Your task to perform on an android device: Search for "jbl flip 4" on bestbuy.com, select the first entry, add it to the cart, then select checkout. Image 0: 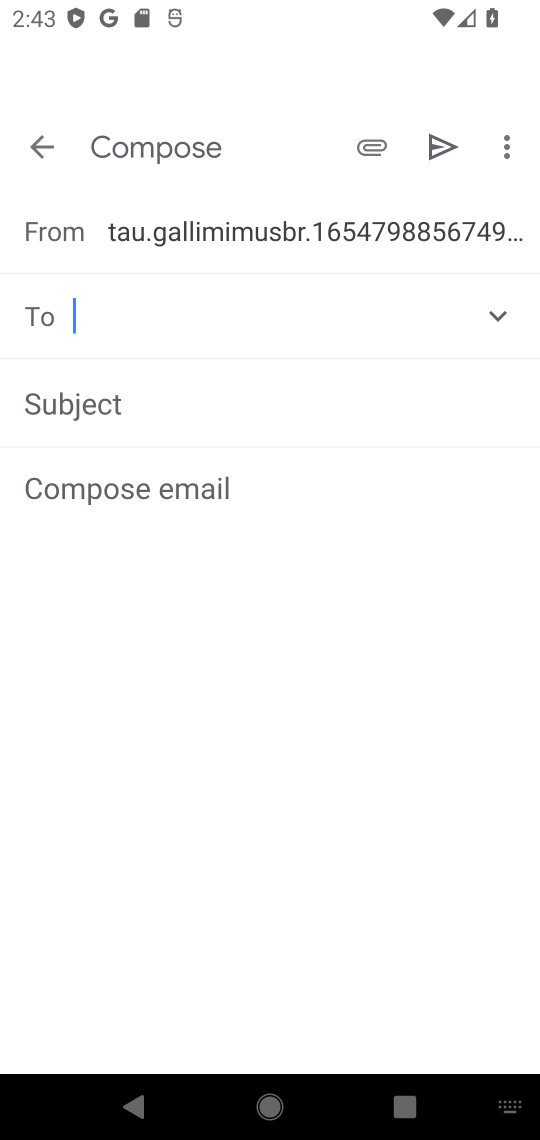
Step 0: press home button
Your task to perform on an android device: Search for "jbl flip 4" on bestbuy.com, select the first entry, add it to the cart, then select checkout. Image 1: 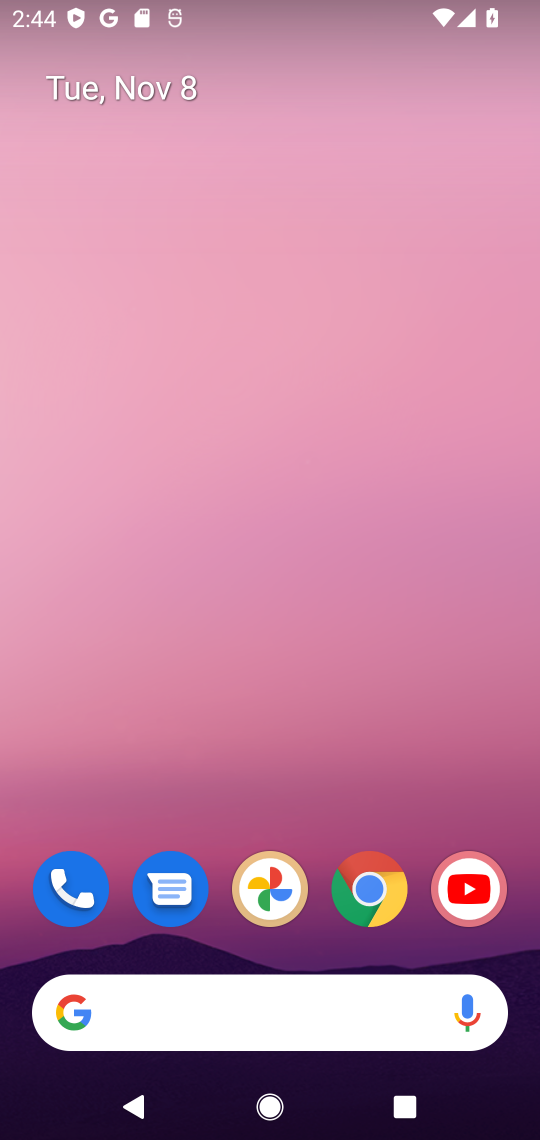
Step 1: click (367, 886)
Your task to perform on an android device: Search for "jbl flip 4" on bestbuy.com, select the first entry, add it to the cart, then select checkout. Image 2: 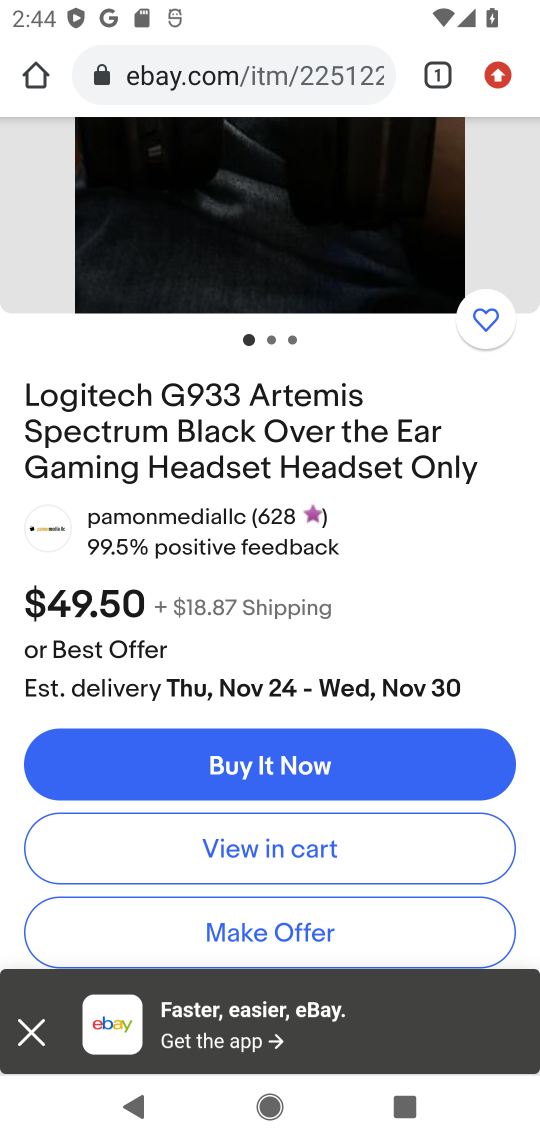
Step 2: click (197, 91)
Your task to perform on an android device: Search for "jbl flip 4" on bestbuy.com, select the first entry, add it to the cart, then select checkout. Image 3: 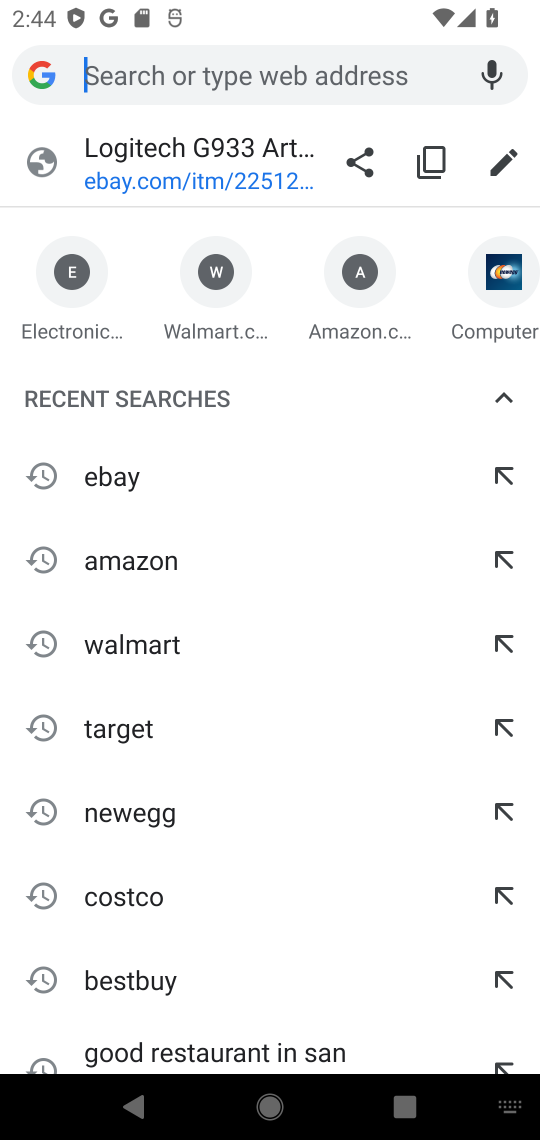
Step 3: type "bestbuy.com"
Your task to perform on an android device: Search for "jbl flip 4" on bestbuy.com, select the first entry, add it to the cart, then select checkout. Image 4: 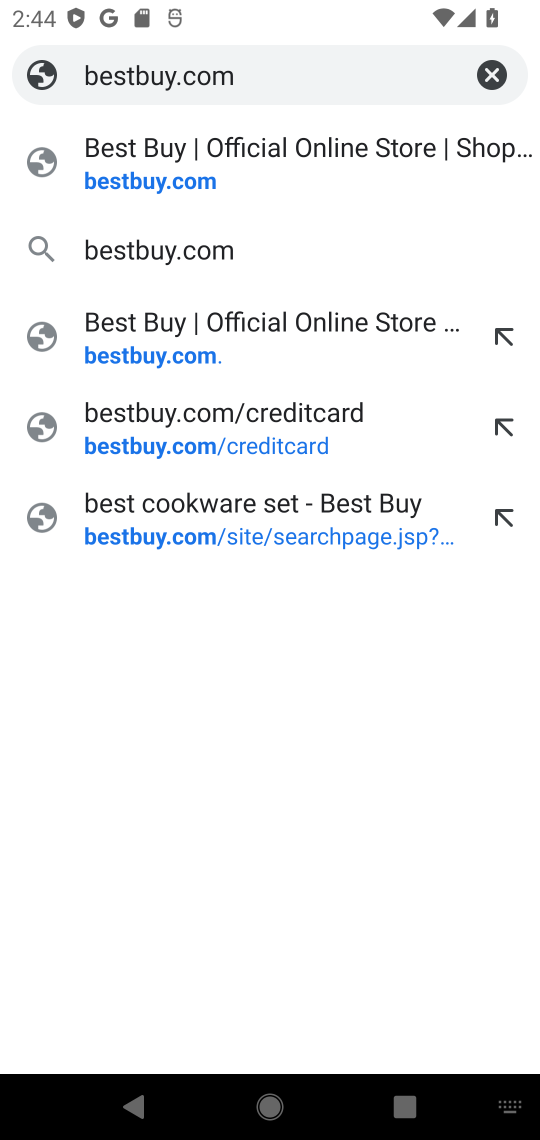
Step 4: click (143, 191)
Your task to perform on an android device: Search for "jbl flip 4" on bestbuy.com, select the first entry, add it to the cart, then select checkout. Image 5: 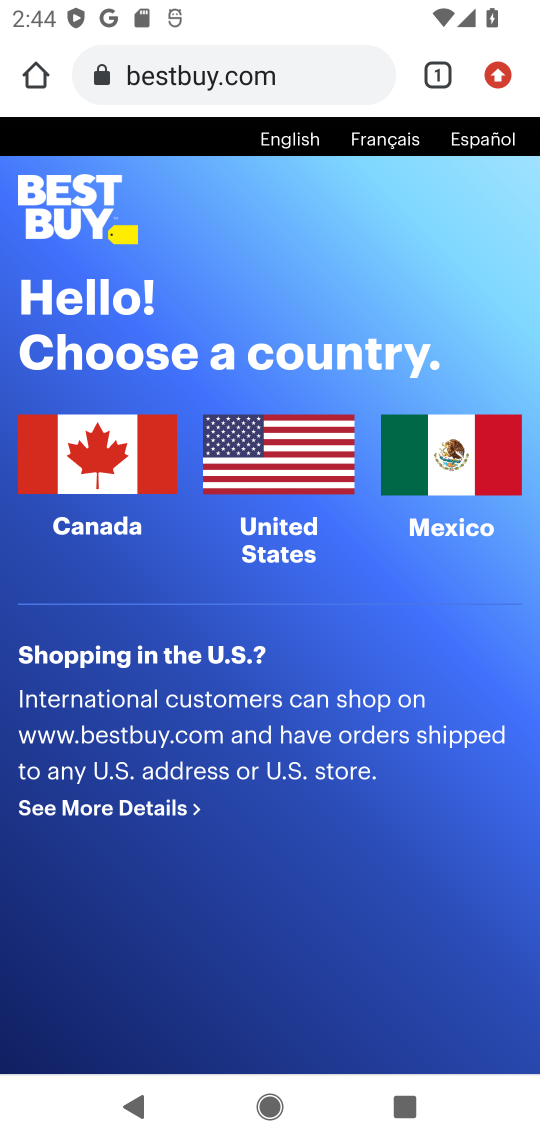
Step 5: click (317, 448)
Your task to perform on an android device: Search for "jbl flip 4" on bestbuy.com, select the first entry, add it to the cart, then select checkout. Image 6: 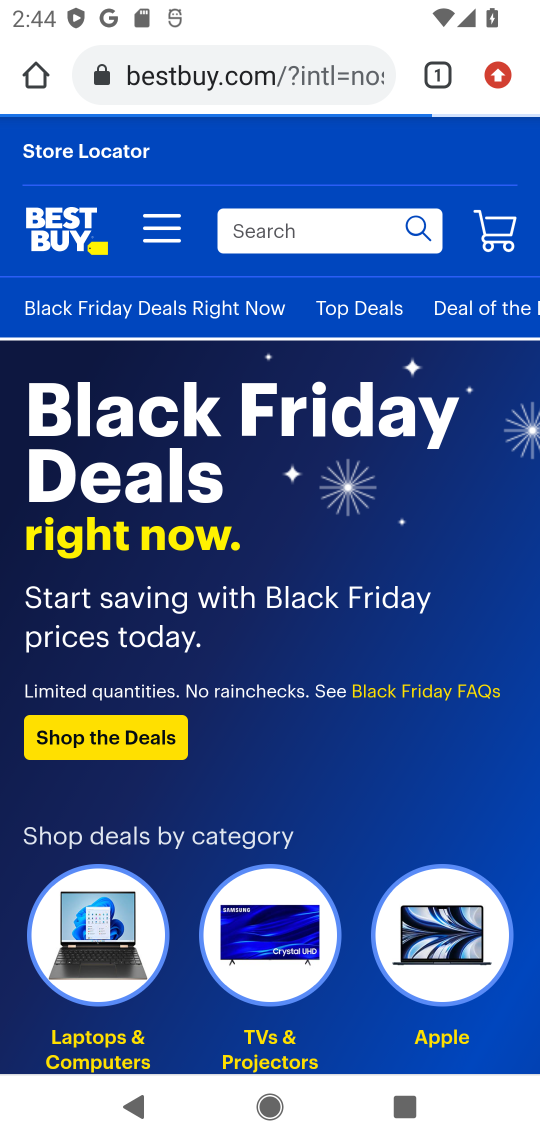
Step 6: click (274, 457)
Your task to perform on an android device: Search for "jbl flip 4" on bestbuy.com, select the first entry, add it to the cart, then select checkout. Image 7: 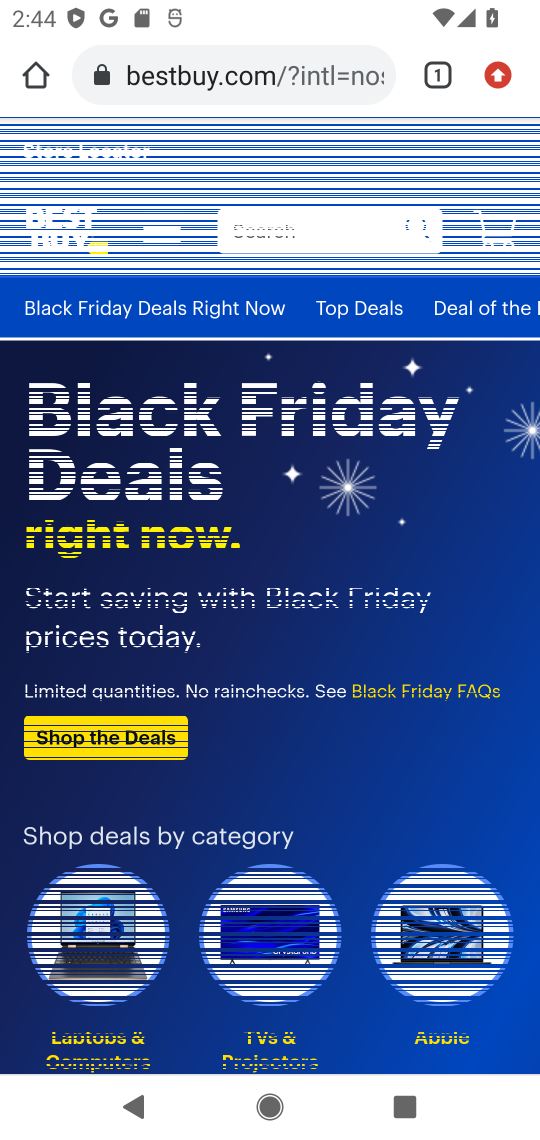
Step 7: drag from (262, 494) to (319, 615)
Your task to perform on an android device: Search for "jbl flip 4" on bestbuy.com, select the first entry, add it to the cart, then select checkout. Image 8: 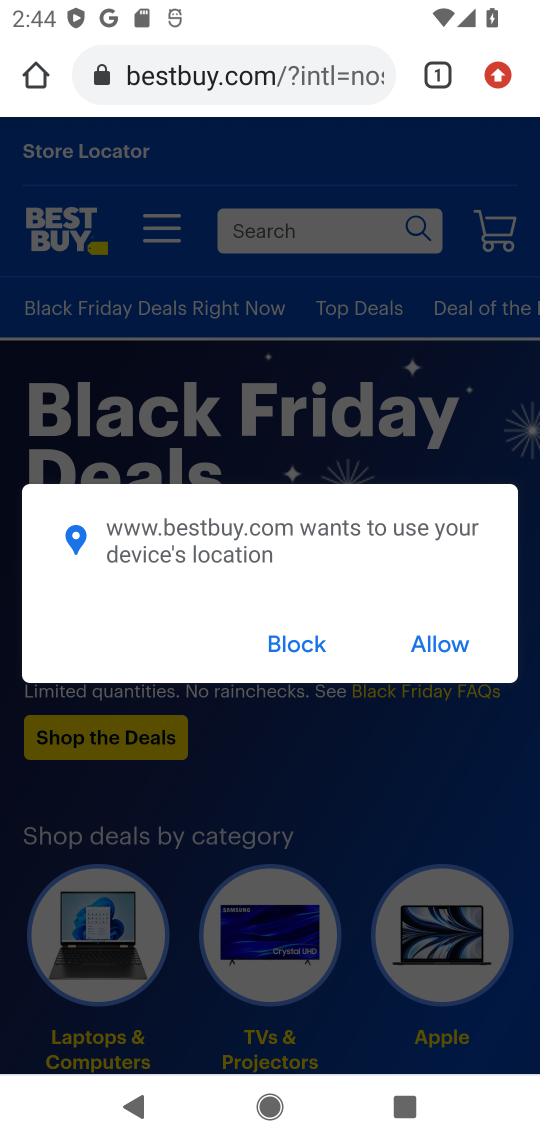
Step 8: click (278, 646)
Your task to perform on an android device: Search for "jbl flip 4" on bestbuy.com, select the first entry, add it to the cart, then select checkout. Image 9: 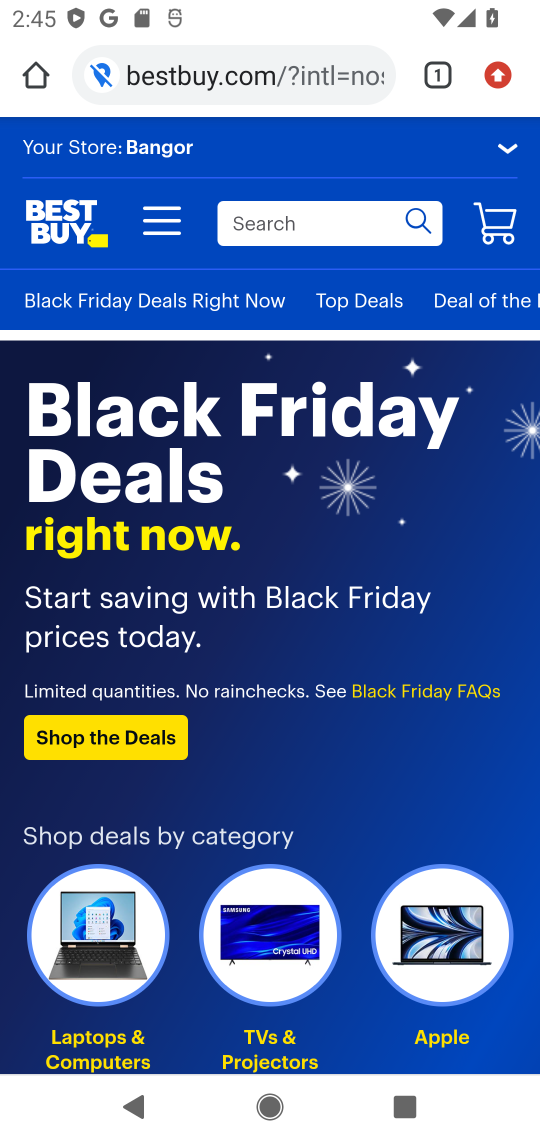
Step 9: click (262, 232)
Your task to perform on an android device: Search for "jbl flip 4" on bestbuy.com, select the first entry, add it to the cart, then select checkout. Image 10: 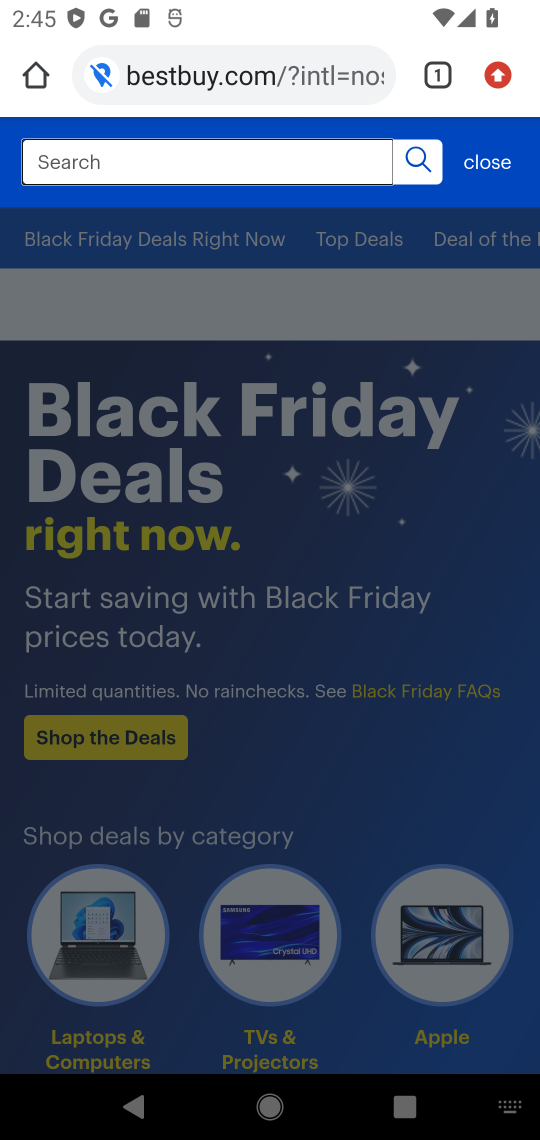
Step 10: type "jbl flip 4"
Your task to perform on an android device: Search for "jbl flip 4" on bestbuy.com, select the first entry, add it to the cart, then select checkout. Image 11: 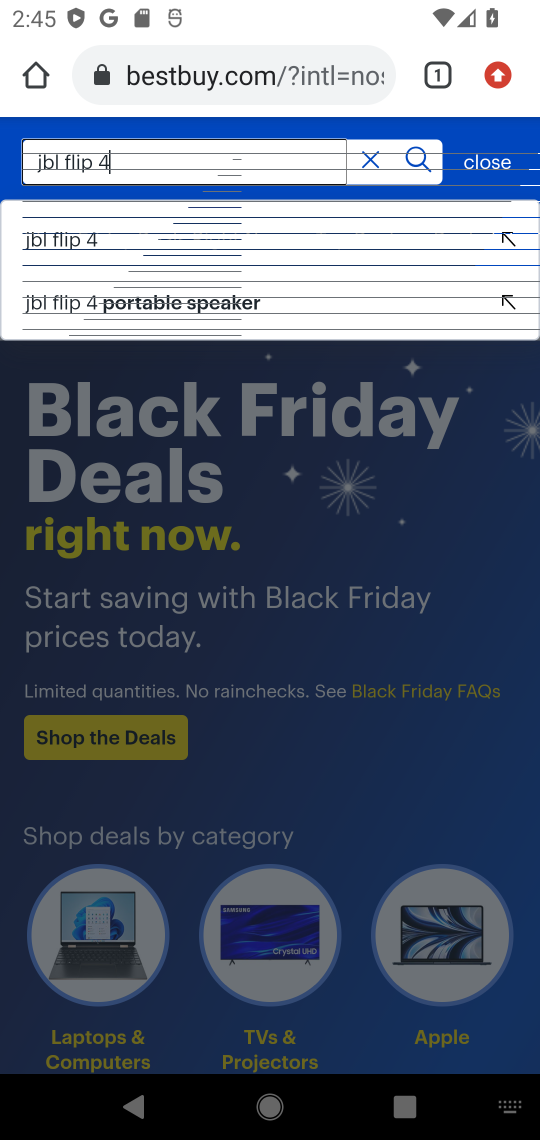
Step 11: click (50, 246)
Your task to perform on an android device: Search for "jbl flip 4" on bestbuy.com, select the first entry, add it to the cart, then select checkout. Image 12: 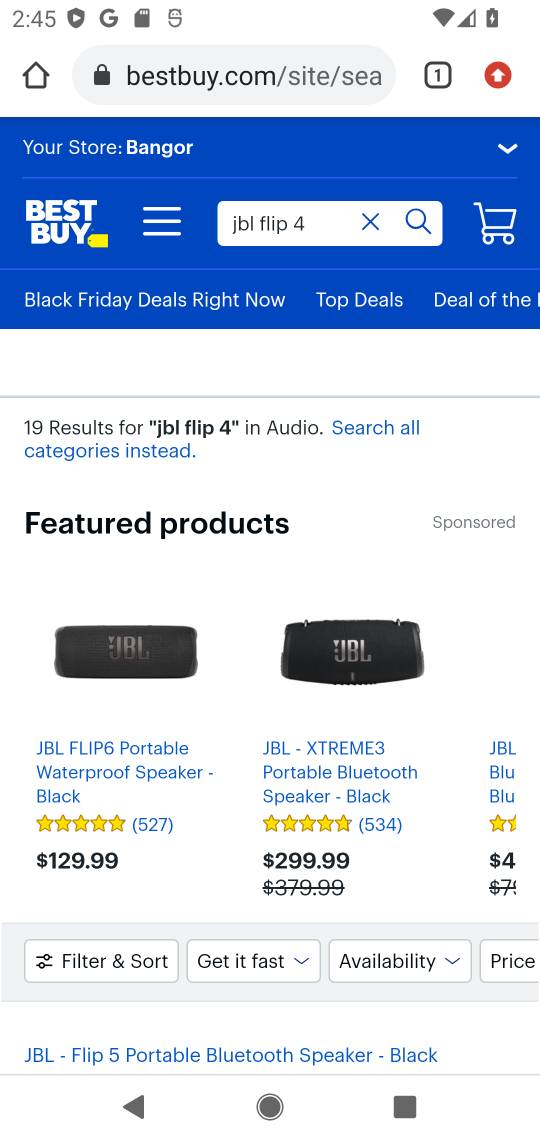
Step 12: task complete